Your task to perform on an android device: turn on wifi Image 0: 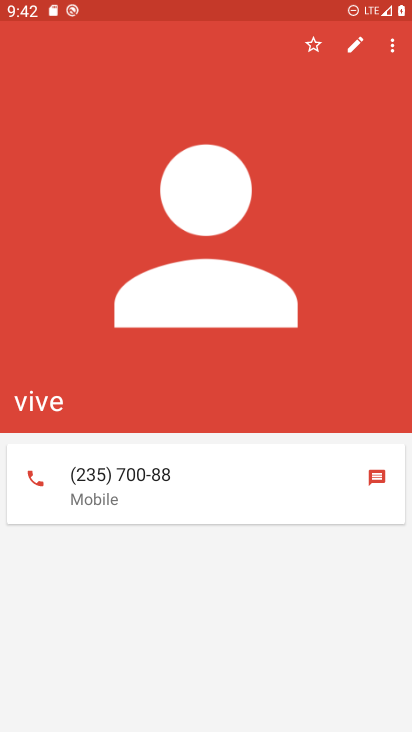
Step 0: press home button
Your task to perform on an android device: turn on wifi Image 1: 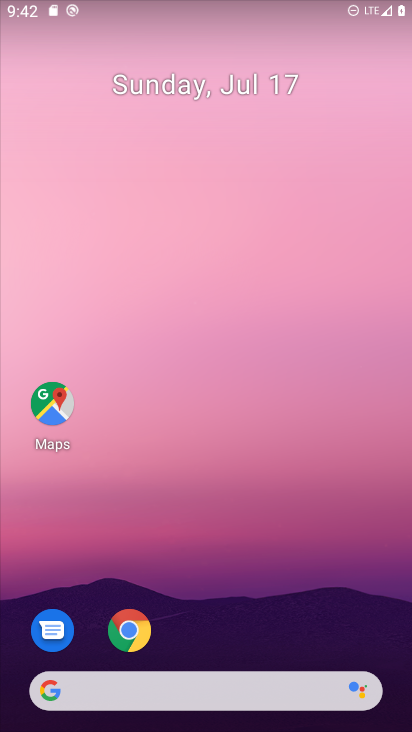
Step 1: drag from (205, 633) to (229, 64)
Your task to perform on an android device: turn on wifi Image 2: 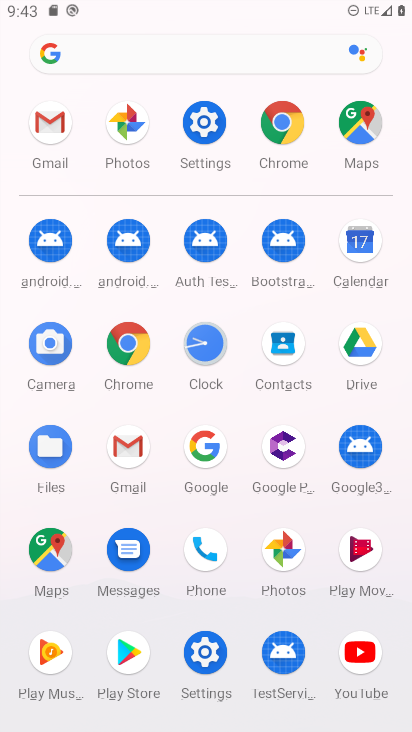
Step 2: click (208, 116)
Your task to perform on an android device: turn on wifi Image 3: 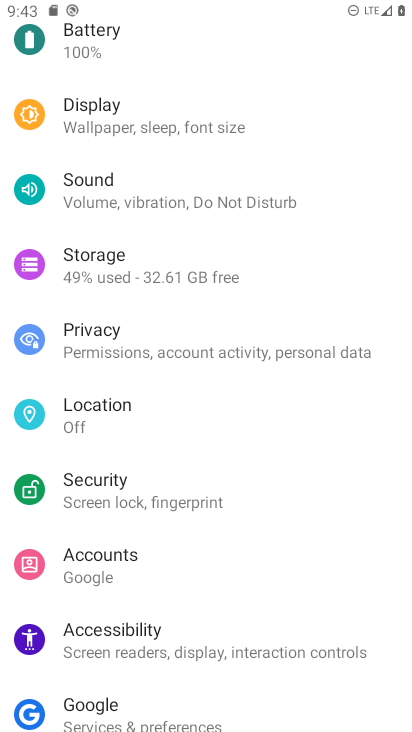
Step 3: drag from (111, 120) to (95, 674)
Your task to perform on an android device: turn on wifi Image 4: 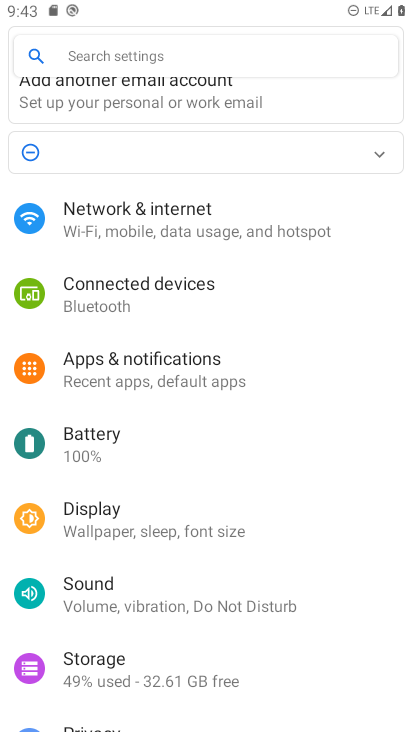
Step 4: click (128, 212)
Your task to perform on an android device: turn on wifi Image 5: 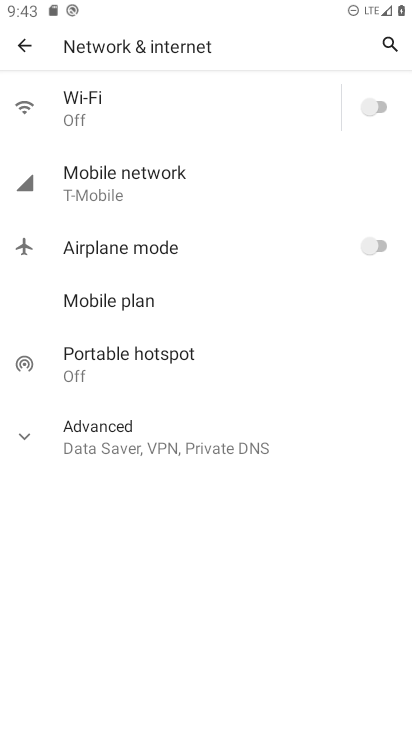
Step 5: click (372, 105)
Your task to perform on an android device: turn on wifi Image 6: 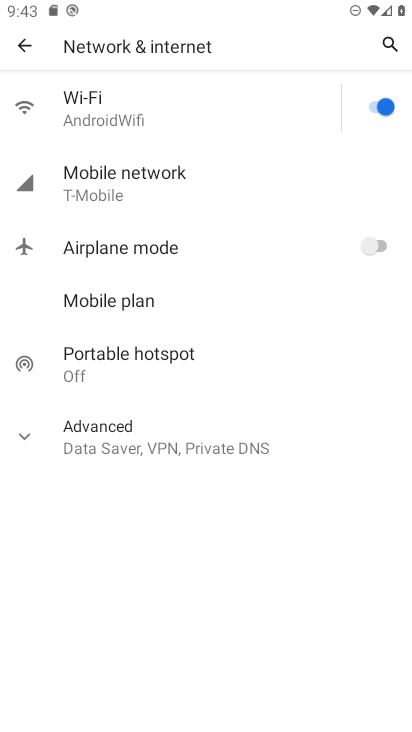
Step 6: task complete